Your task to perform on an android device: star an email in the gmail app Image 0: 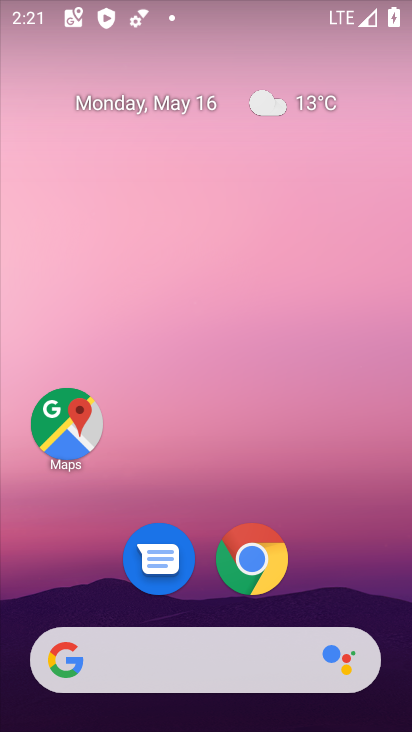
Step 0: drag from (171, 593) to (224, 43)
Your task to perform on an android device: star an email in the gmail app Image 1: 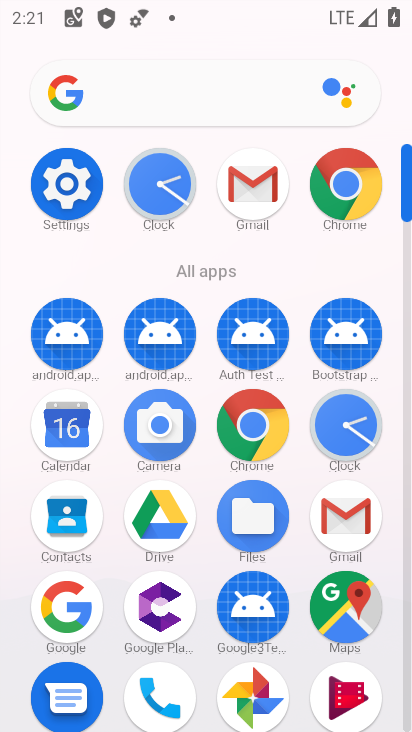
Step 1: click (236, 169)
Your task to perform on an android device: star an email in the gmail app Image 2: 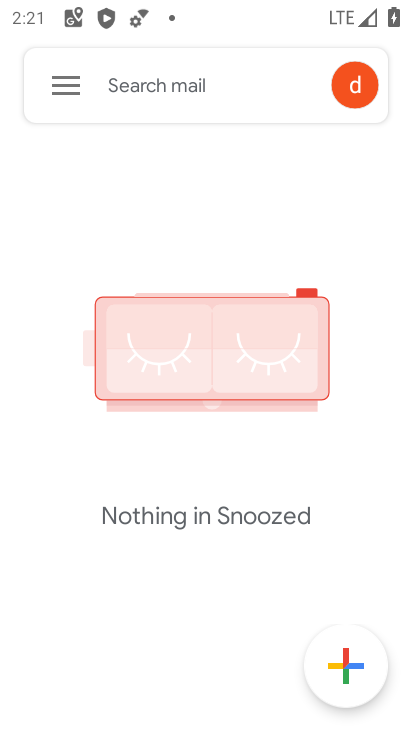
Step 2: click (51, 76)
Your task to perform on an android device: star an email in the gmail app Image 3: 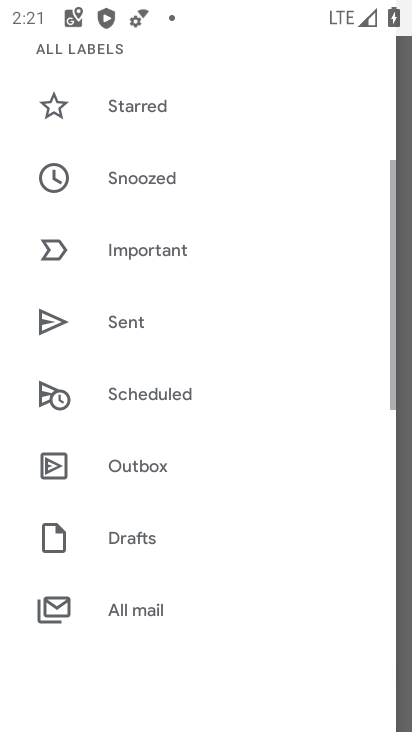
Step 3: drag from (173, 186) to (184, 75)
Your task to perform on an android device: star an email in the gmail app Image 4: 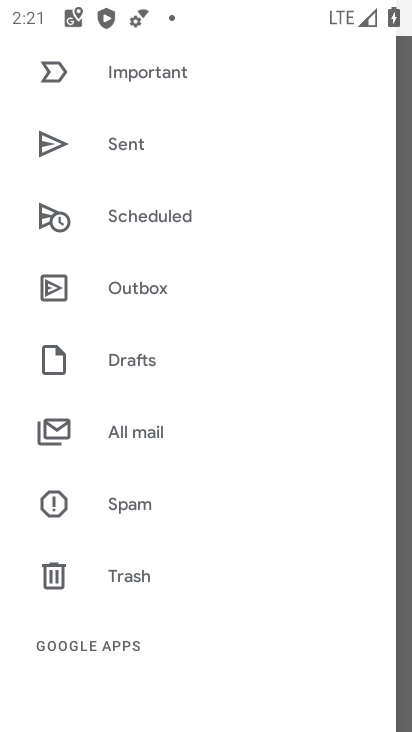
Step 4: click (133, 434)
Your task to perform on an android device: star an email in the gmail app Image 5: 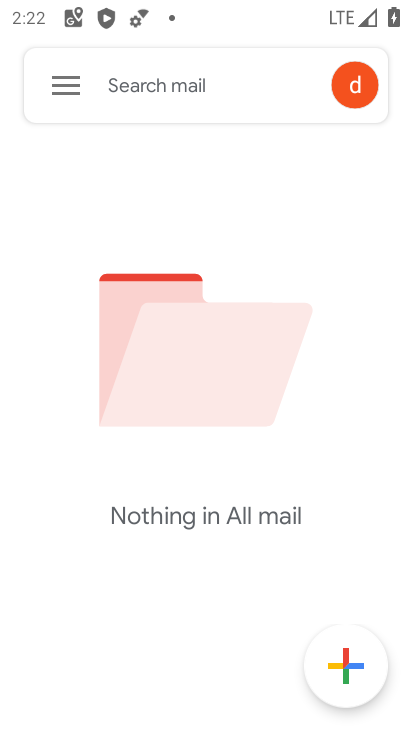
Step 5: task complete